Your task to perform on an android device: Go to wifi settings Image 0: 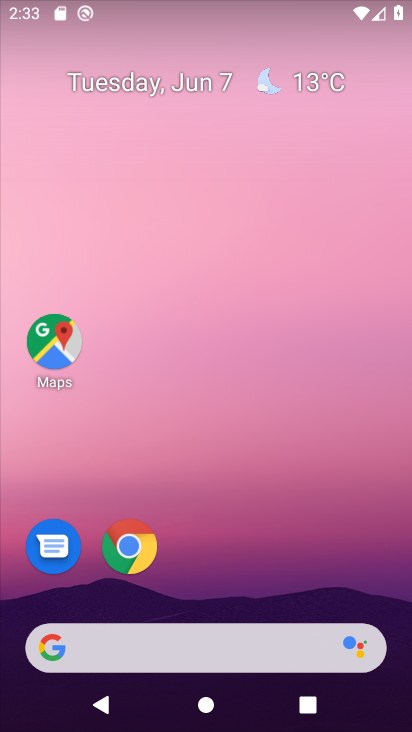
Step 0: drag from (316, 392) to (312, 248)
Your task to perform on an android device: Go to wifi settings Image 1: 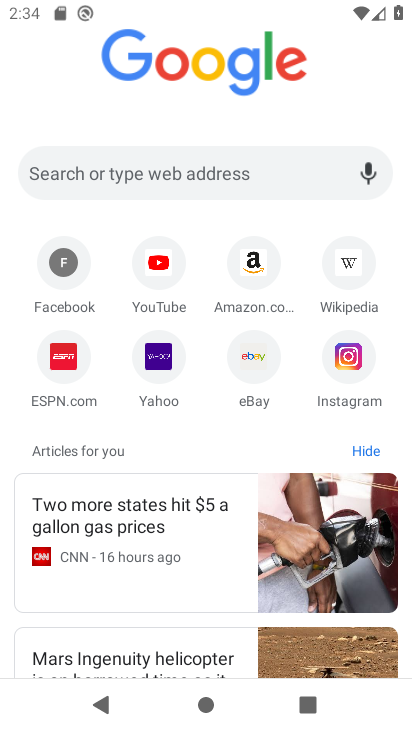
Step 1: press home button
Your task to perform on an android device: Go to wifi settings Image 2: 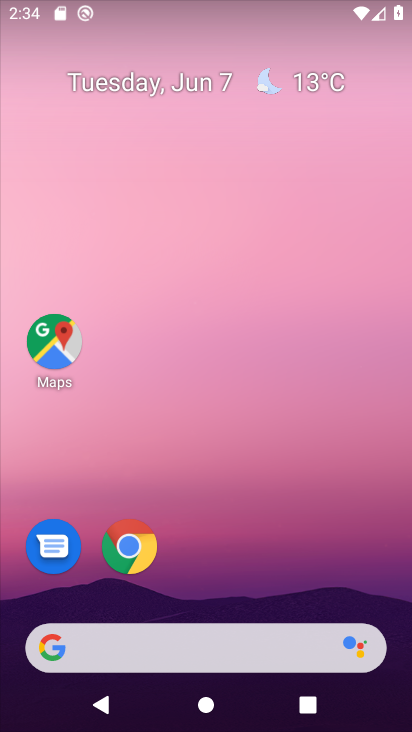
Step 2: drag from (314, 560) to (297, 313)
Your task to perform on an android device: Go to wifi settings Image 3: 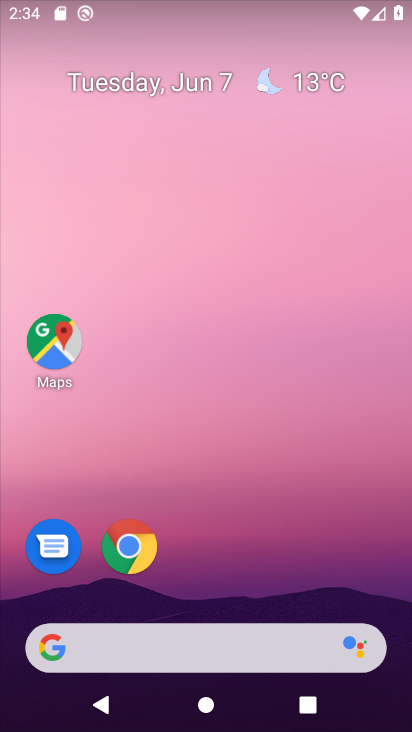
Step 3: drag from (318, 566) to (295, 202)
Your task to perform on an android device: Go to wifi settings Image 4: 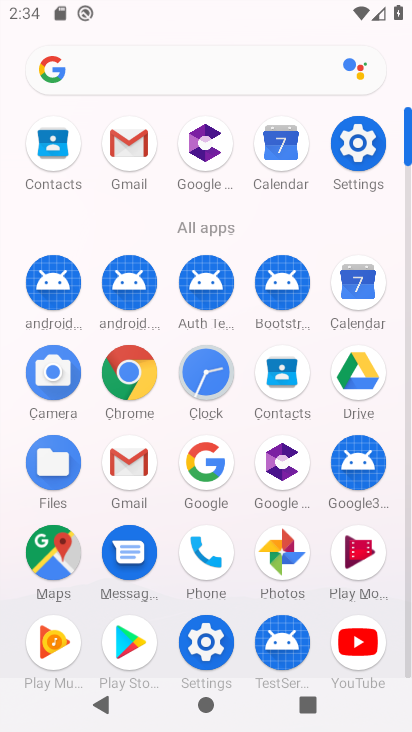
Step 4: click (357, 153)
Your task to perform on an android device: Go to wifi settings Image 5: 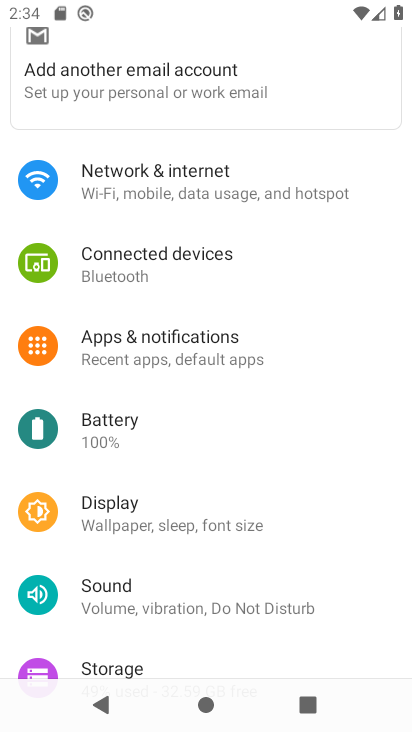
Step 5: drag from (338, 557) to (337, 333)
Your task to perform on an android device: Go to wifi settings Image 6: 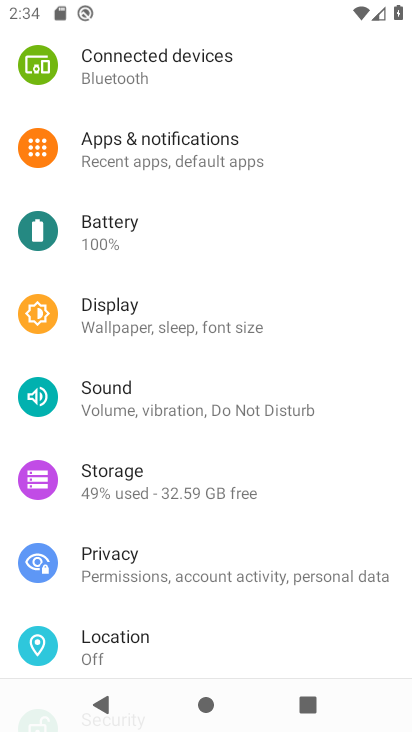
Step 6: drag from (336, 595) to (336, 425)
Your task to perform on an android device: Go to wifi settings Image 7: 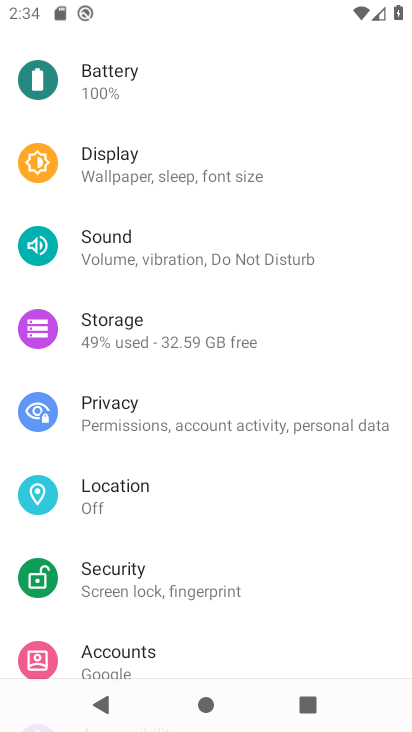
Step 7: drag from (331, 614) to (340, 411)
Your task to perform on an android device: Go to wifi settings Image 8: 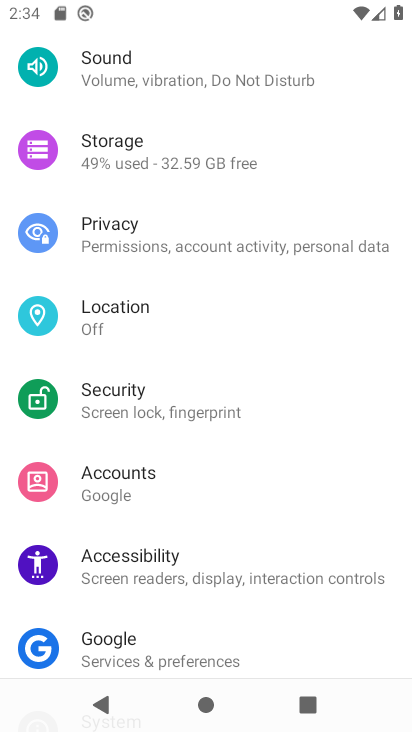
Step 8: drag from (328, 631) to (331, 412)
Your task to perform on an android device: Go to wifi settings Image 9: 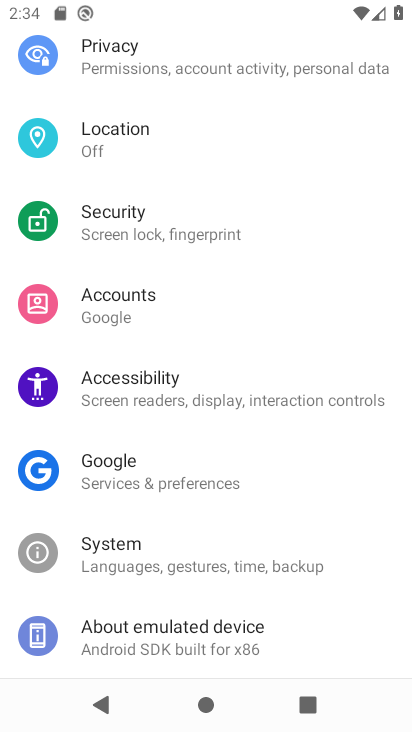
Step 9: drag from (302, 561) to (291, 375)
Your task to perform on an android device: Go to wifi settings Image 10: 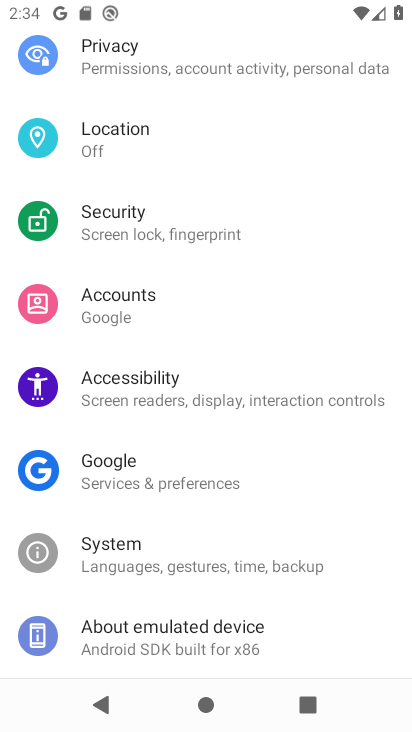
Step 10: drag from (297, 569) to (296, 414)
Your task to perform on an android device: Go to wifi settings Image 11: 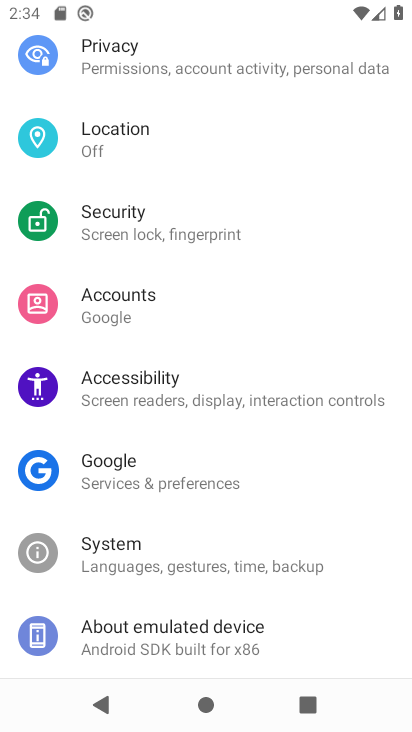
Step 11: drag from (312, 617) to (317, 361)
Your task to perform on an android device: Go to wifi settings Image 12: 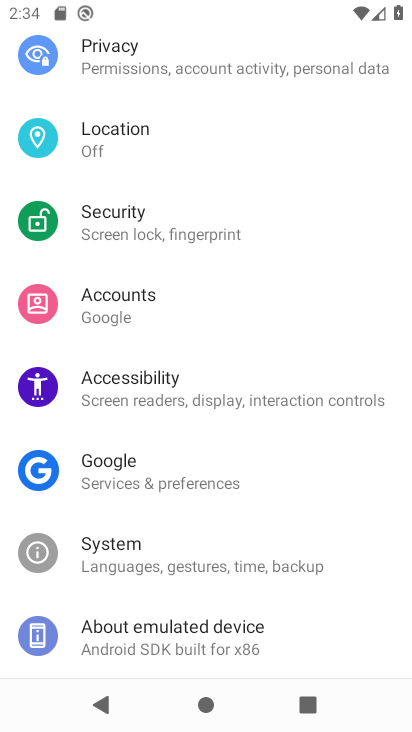
Step 12: drag from (302, 596) to (302, 404)
Your task to perform on an android device: Go to wifi settings Image 13: 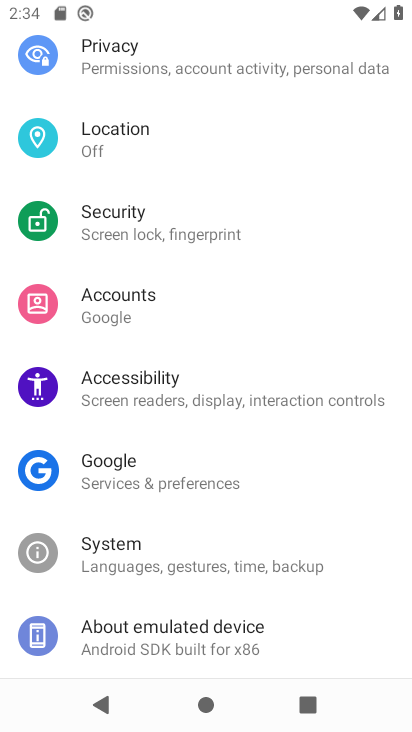
Step 13: drag from (316, 340) to (326, 560)
Your task to perform on an android device: Go to wifi settings Image 14: 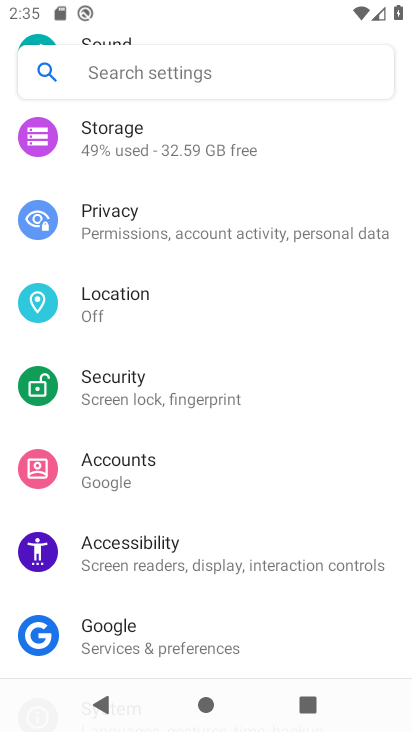
Step 14: drag from (308, 313) to (326, 511)
Your task to perform on an android device: Go to wifi settings Image 15: 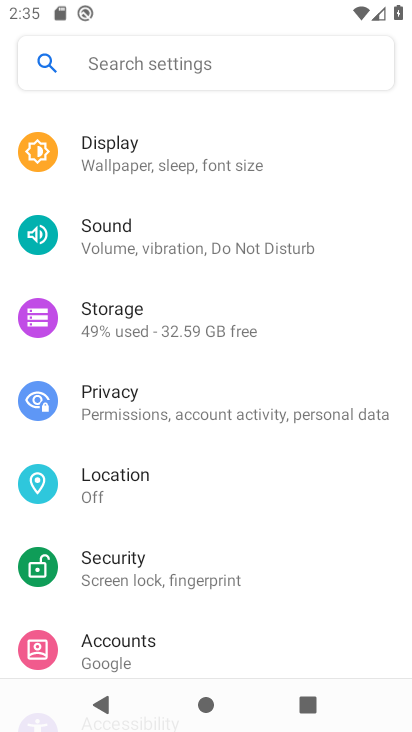
Step 15: drag from (315, 330) to (315, 432)
Your task to perform on an android device: Go to wifi settings Image 16: 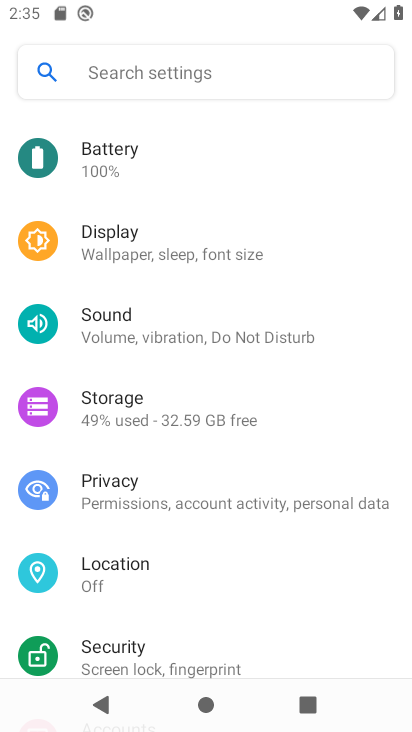
Step 16: drag from (288, 192) to (289, 423)
Your task to perform on an android device: Go to wifi settings Image 17: 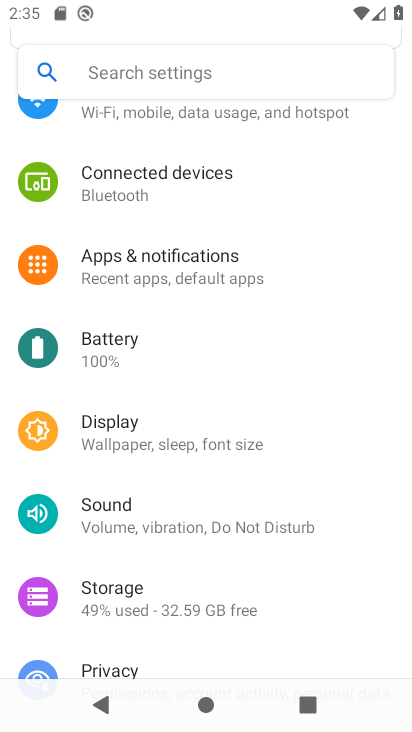
Step 17: drag from (302, 165) to (320, 328)
Your task to perform on an android device: Go to wifi settings Image 18: 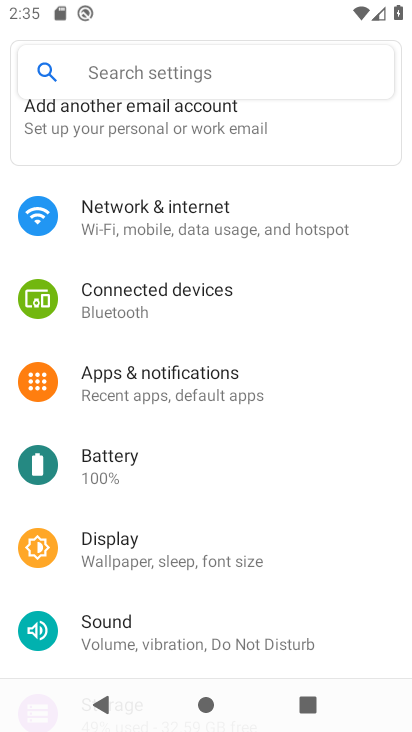
Step 18: click (228, 232)
Your task to perform on an android device: Go to wifi settings Image 19: 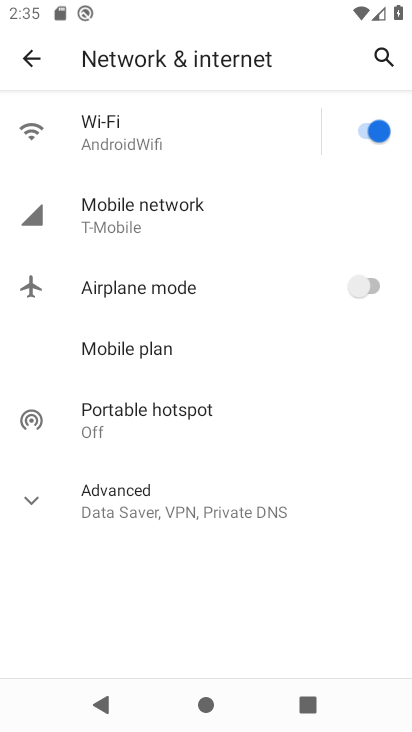
Step 19: click (125, 150)
Your task to perform on an android device: Go to wifi settings Image 20: 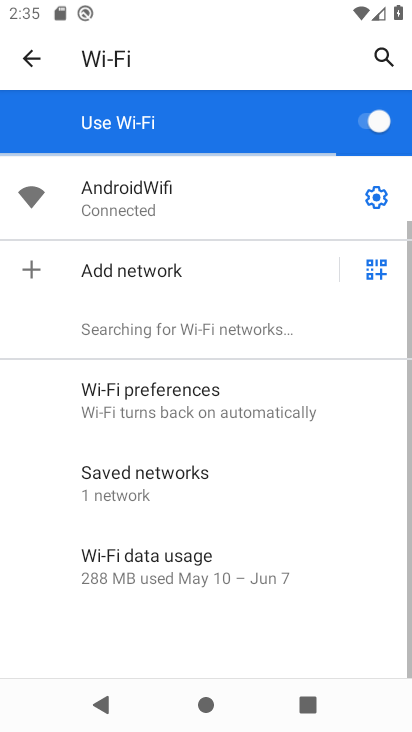
Step 20: task complete